Your task to perform on an android device: Go to Google maps Image 0: 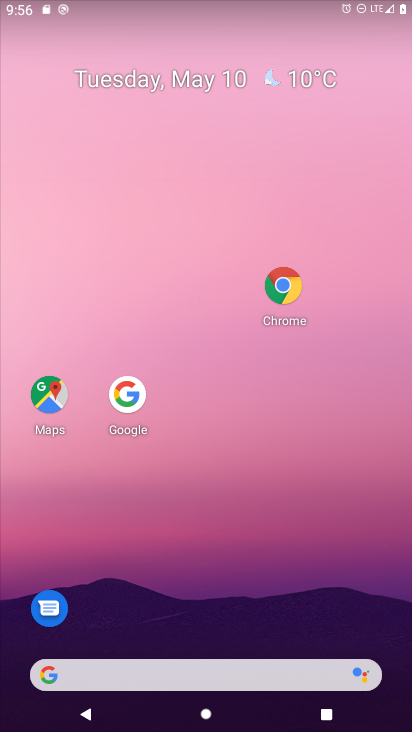
Step 0: click (47, 398)
Your task to perform on an android device: Go to Google maps Image 1: 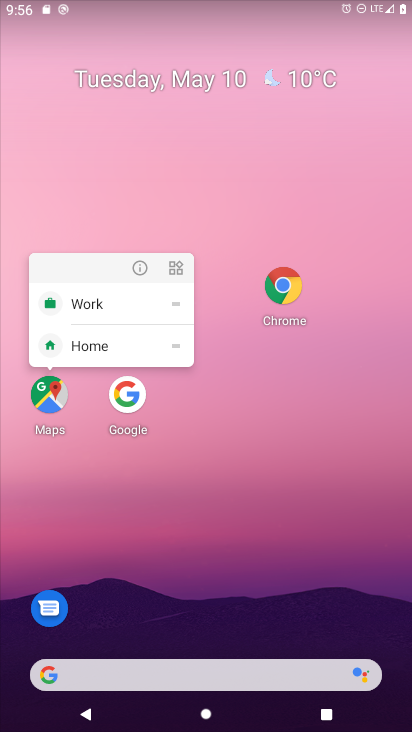
Step 1: click (49, 402)
Your task to perform on an android device: Go to Google maps Image 2: 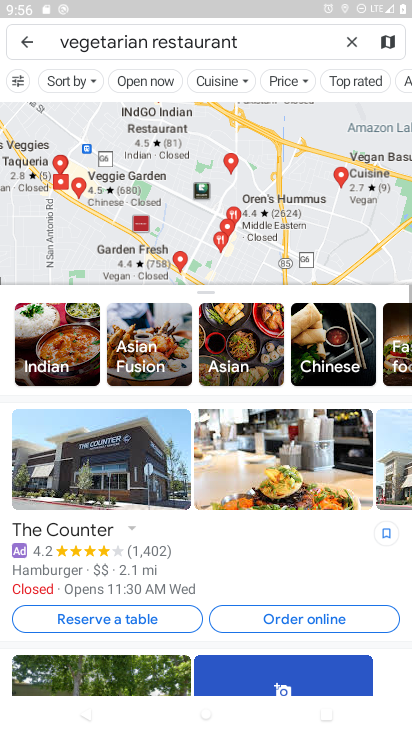
Step 2: click (25, 40)
Your task to perform on an android device: Go to Google maps Image 3: 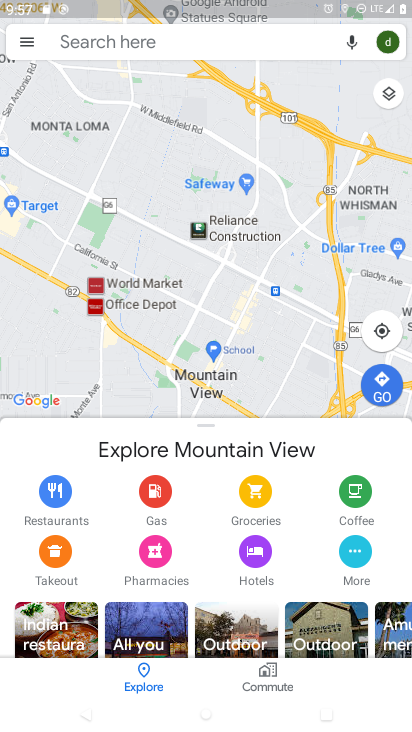
Step 3: task complete